Your task to perform on an android device: turn notification dots off Image 0: 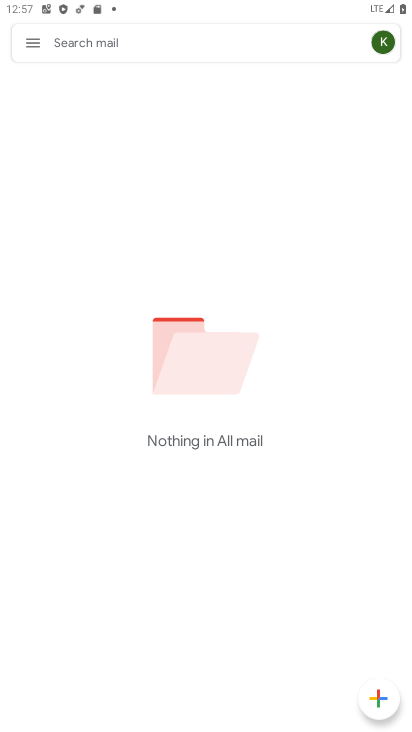
Step 0: press home button
Your task to perform on an android device: turn notification dots off Image 1: 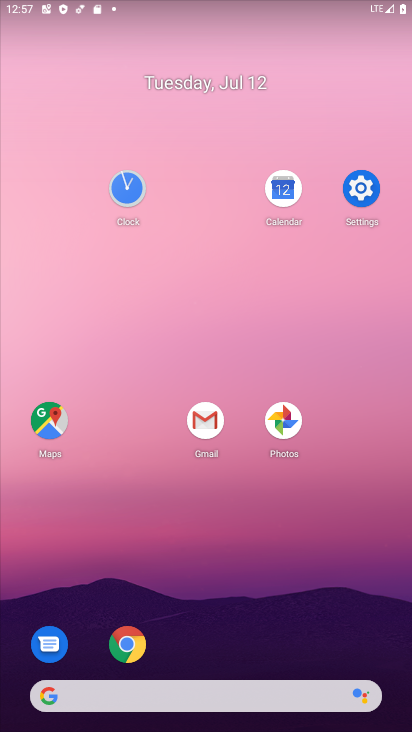
Step 1: click (345, 188)
Your task to perform on an android device: turn notification dots off Image 2: 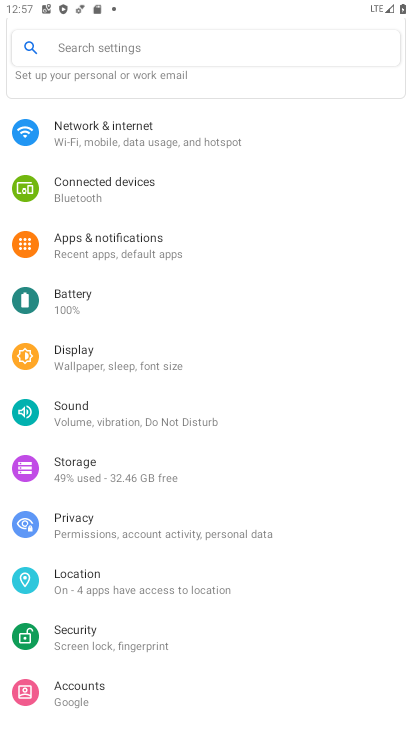
Step 2: click (231, 243)
Your task to perform on an android device: turn notification dots off Image 3: 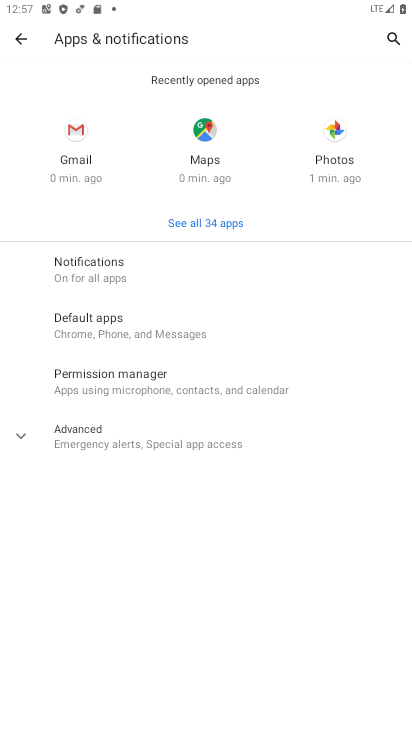
Step 3: click (129, 278)
Your task to perform on an android device: turn notification dots off Image 4: 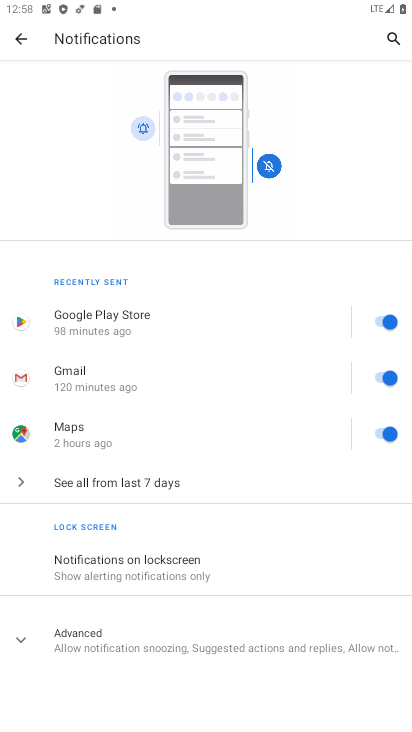
Step 4: click (170, 624)
Your task to perform on an android device: turn notification dots off Image 5: 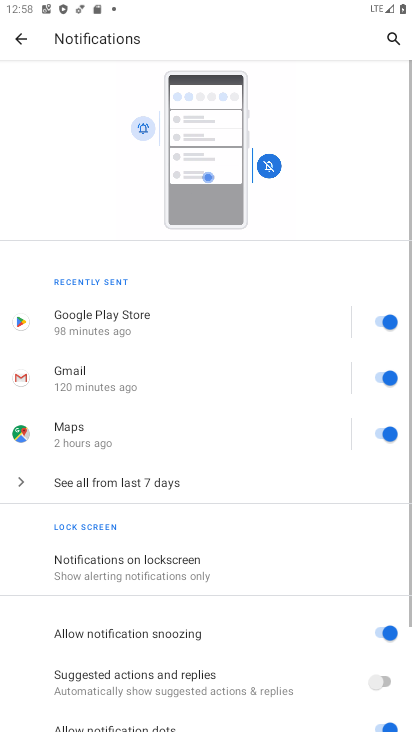
Step 5: drag from (170, 624) to (155, 377)
Your task to perform on an android device: turn notification dots off Image 6: 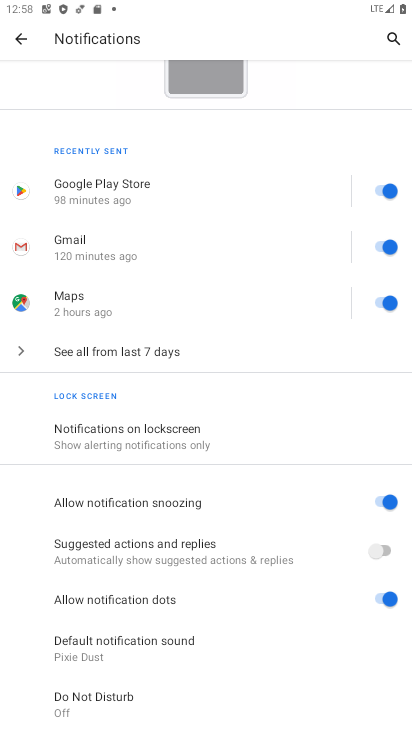
Step 6: click (379, 589)
Your task to perform on an android device: turn notification dots off Image 7: 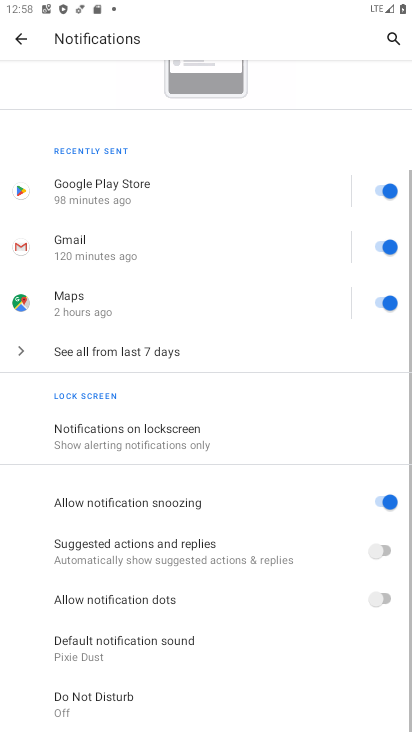
Step 7: task complete